Your task to perform on an android device: What's the weather today? Image 0: 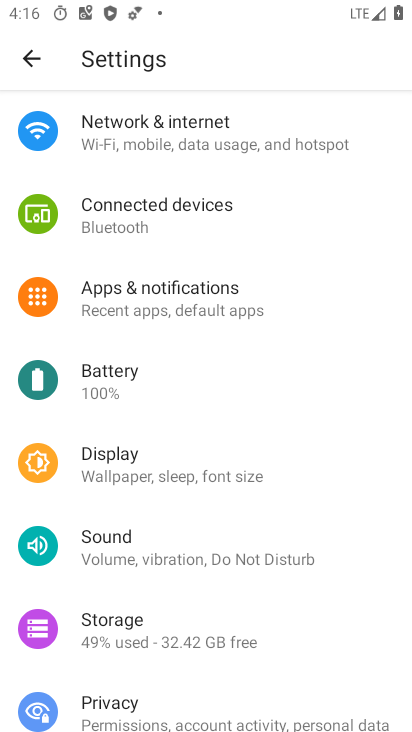
Step 0: press home button
Your task to perform on an android device: What's the weather today? Image 1: 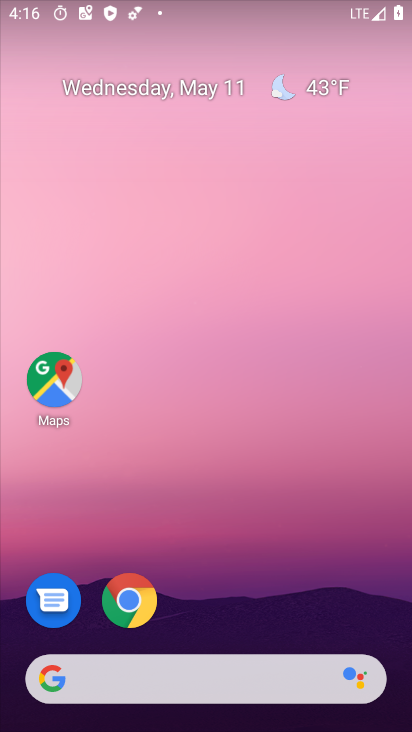
Step 1: click (322, 95)
Your task to perform on an android device: What's the weather today? Image 2: 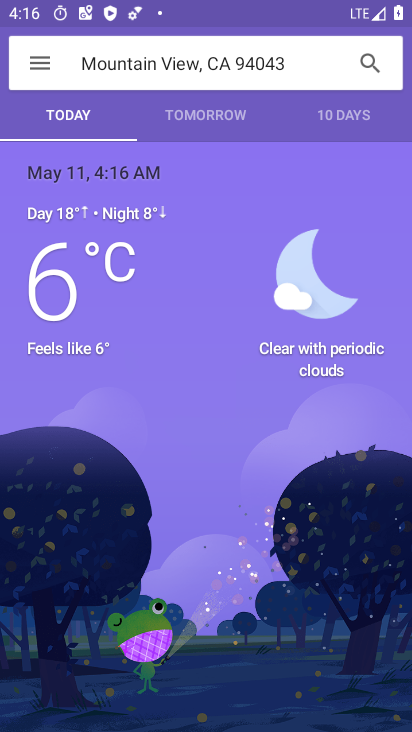
Step 2: task complete